Your task to perform on an android device: change notification settings in the gmail app Image 0: 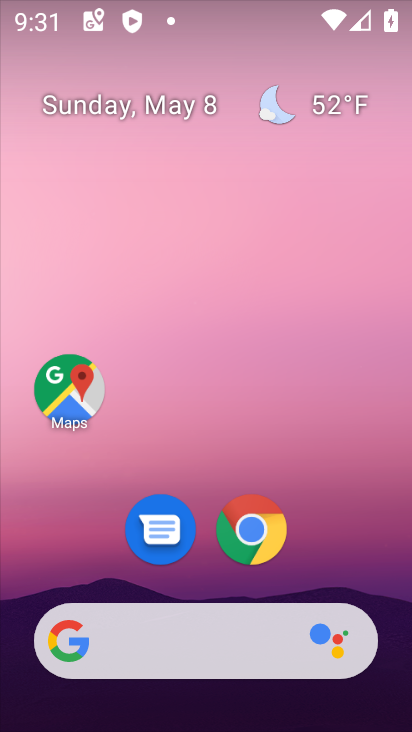
Step 0: drag from (383, 545) to (349, 126)
Your task to perform on an android device: change notification settings in the gmail app Image 1: 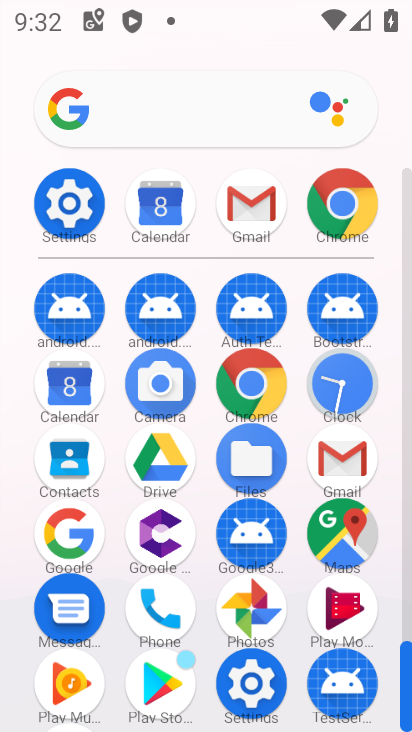
Step 1: click (360, 454)
Your task to perform on an android device: change notification settings in the gmail app Image 2: 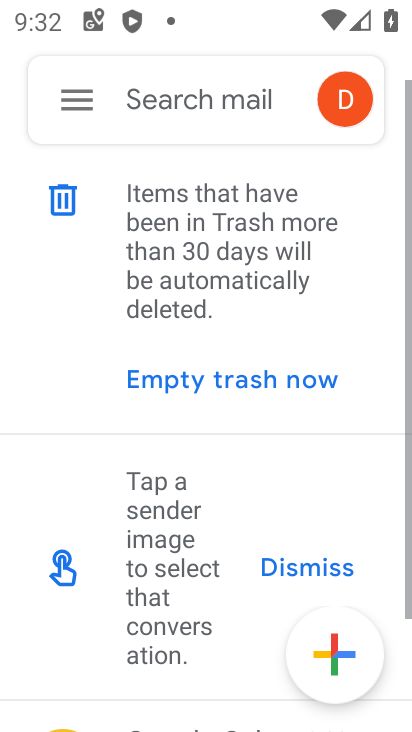
Step 2: click (70, 102)
Your task to perform on an android device: change notification settings in the gmail app Image 3: 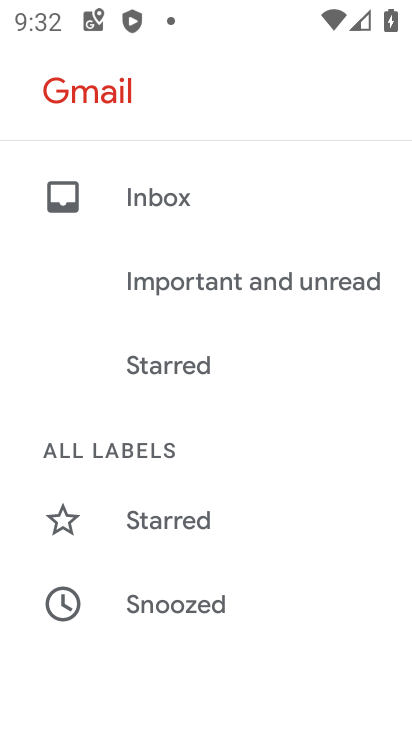
Step 3: drag from (258, 621) to (345, 233)
Your task to perform on an android device: change notification settings in the gmail app Image 4: 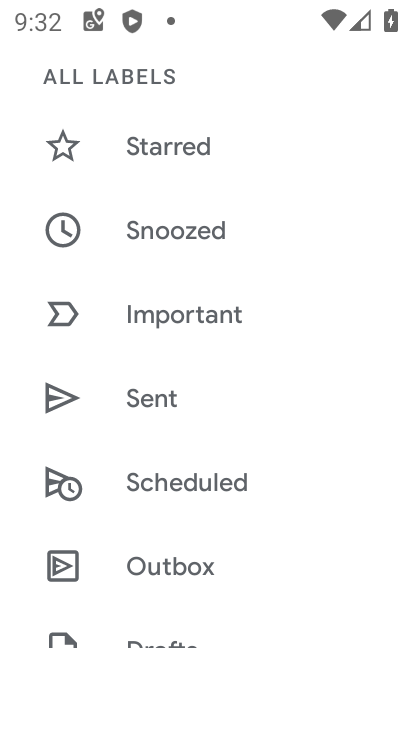
Step 4: drag from (272, 550) to (310, 176)
Your task to perform on an android device: change notification settings in the gmail app Image 5: 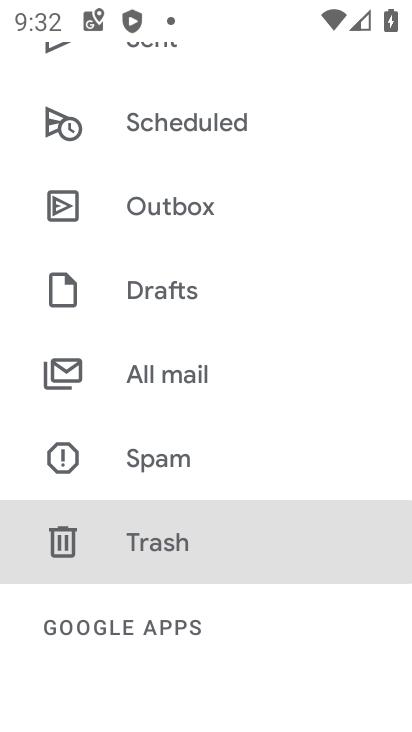
Step 5: drag from (277, 561) to (302, 204)
Your task to perform on an android device: change notification settings in the gmail app Image 6: 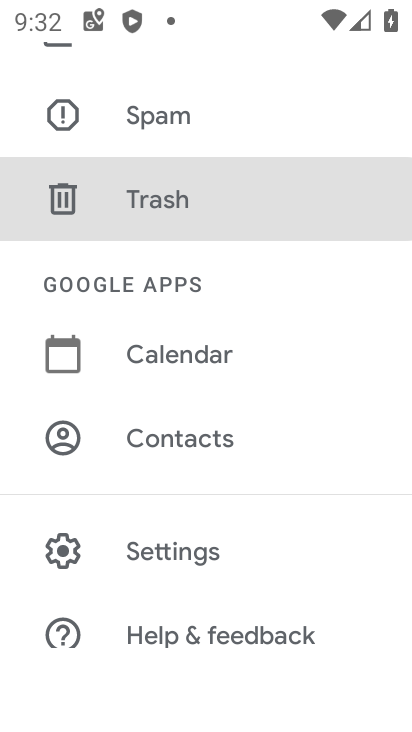
Step 6: click (210, 564)
Your task to perform on an android device: change notification settings in the gmail app Image 7: 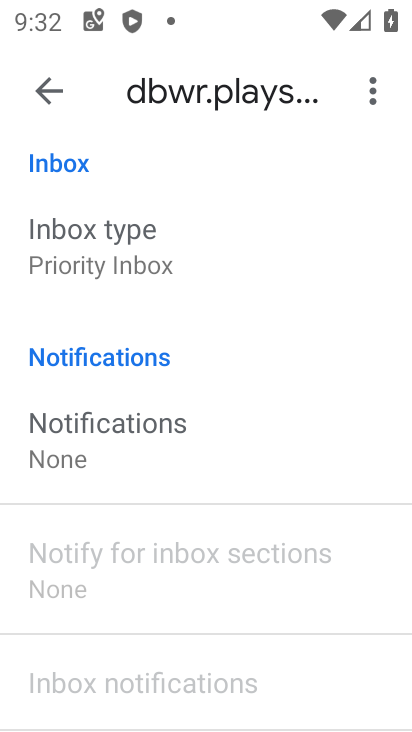
Step 7: click (168, 427)
Your task to perform on an android device: change notification settings in the gmail app Image 8: 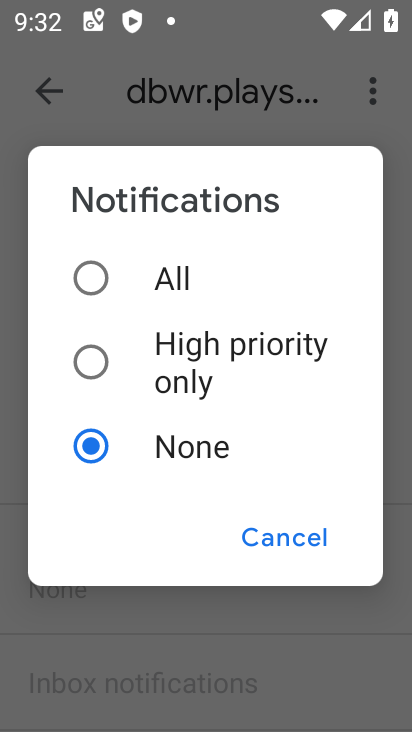
Step 8: click (170, 284)
Your task to perform on an android device: change notification settings in the gmail app Image 9: 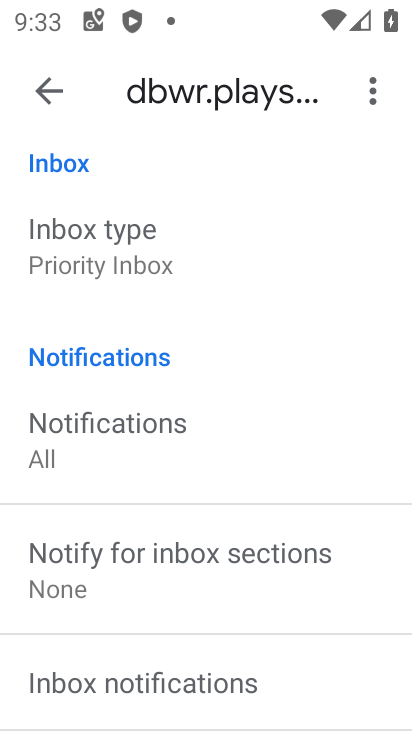
Step 9: task complete